Your task to perform on an android device: open app "DuckDuckGo Privacy Browser" (install if not already installed) and go to login screen Image 0: 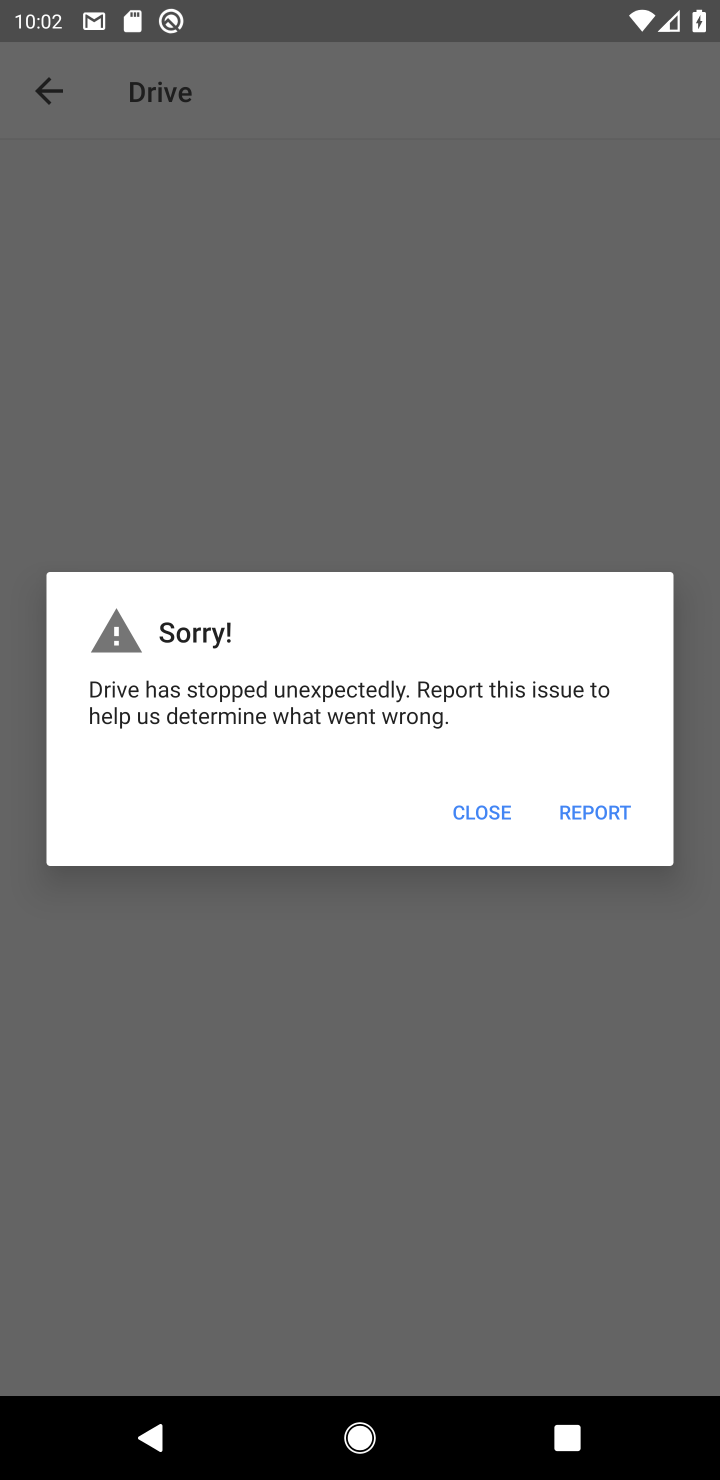
Step 0: press home button
Your task to perform on an android device: open app "DuckDuckGo Privacy Browser" (install if not already installed) and go to login screen Image 1: 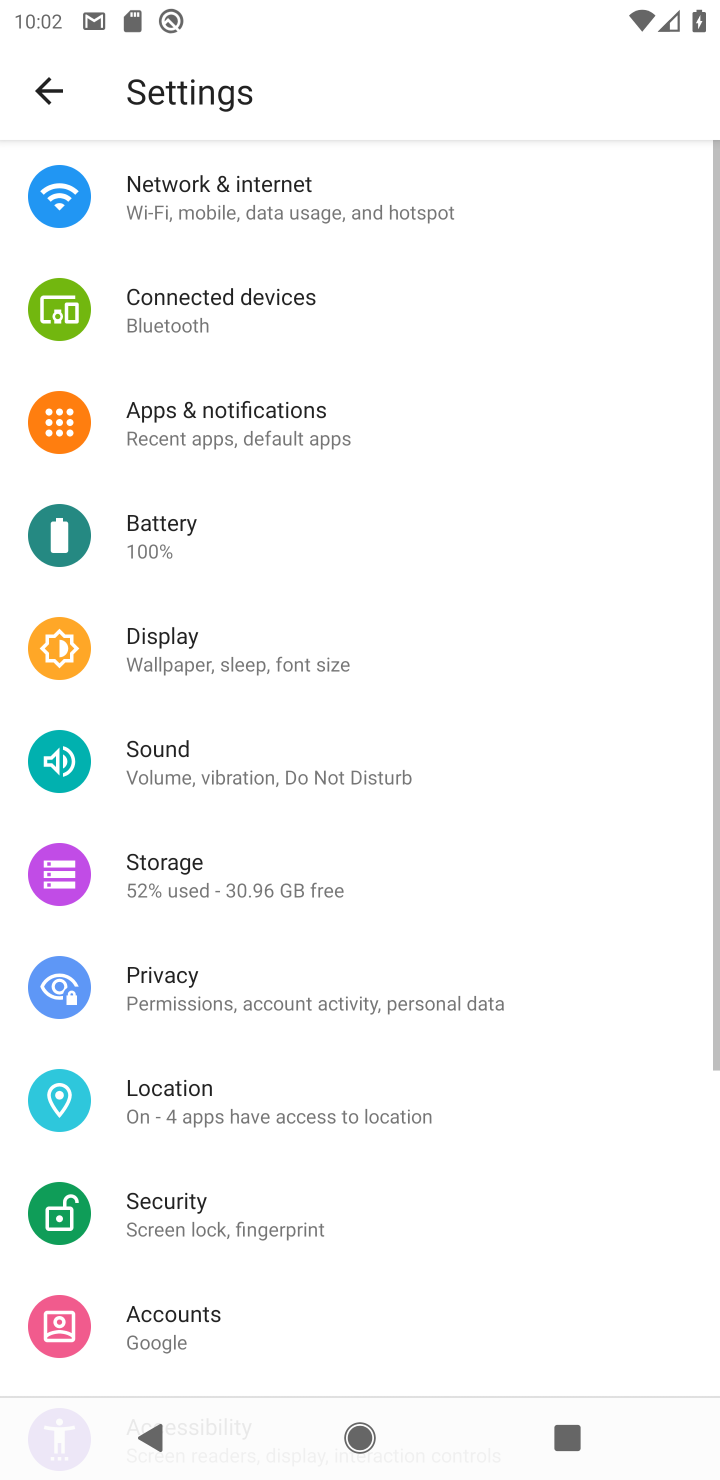
Step 1: press home button
Your task to perform on an android device: open app "DuckDuckGo Privacy Browser" (install if not already installed) and go to login screen Image 2: 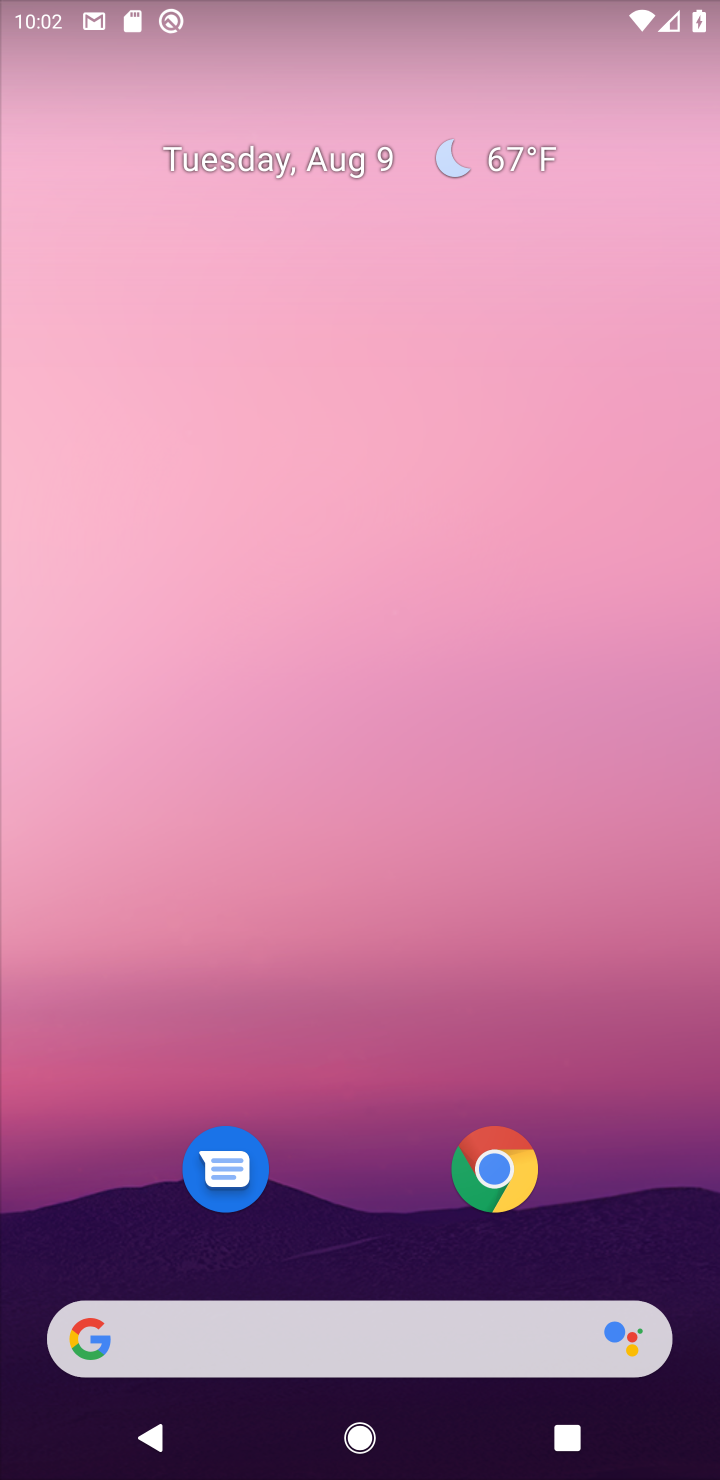
Step 2: drag from (440, 820) to (676, 276)
Your task to perform on an android device: open app "DuckDuckGo Privacy Browser" (install if not already installed) and go to login screen Image 3: 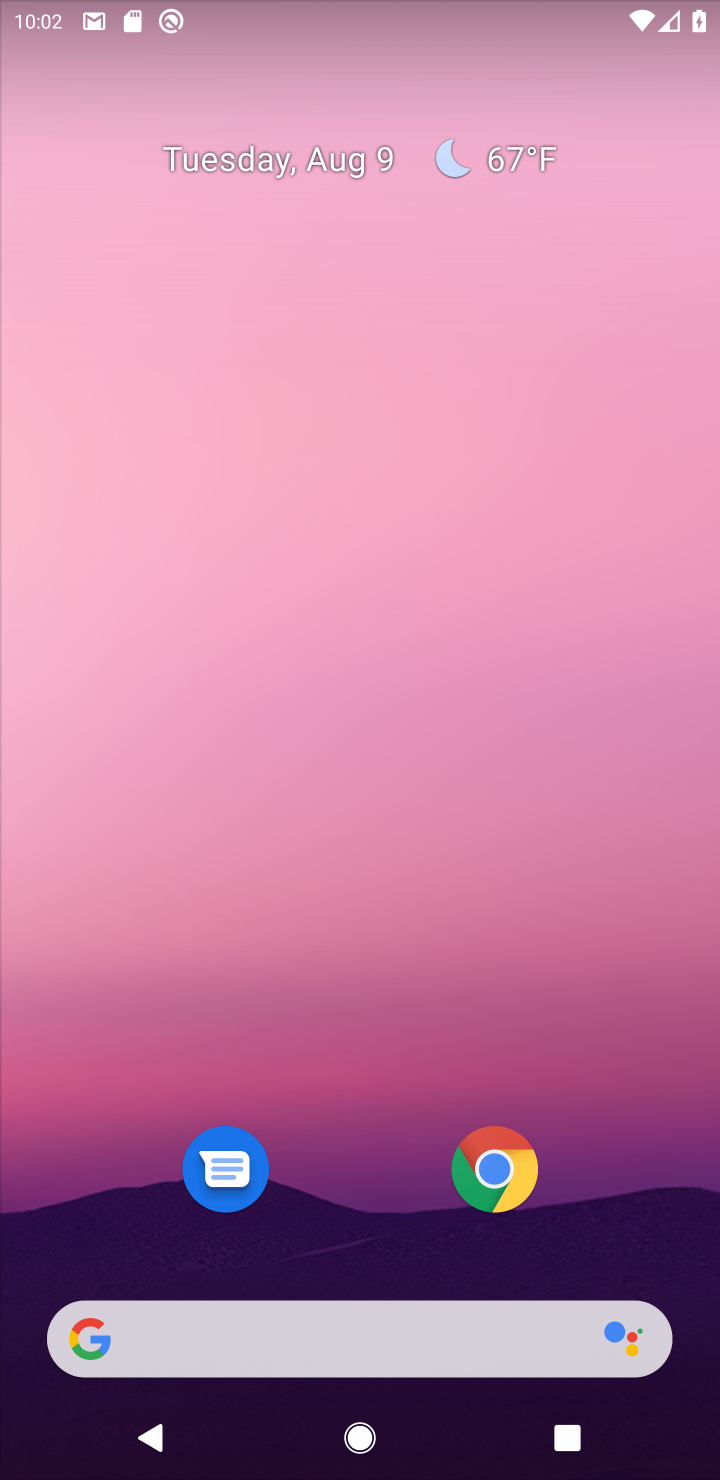
Step 3: drag from (626, 1050) to (655, 116)
Your task to perform on an android device: open app "DuckDuckGo Privacy Browser" (install if not already installed) and go to login screen Image 4: 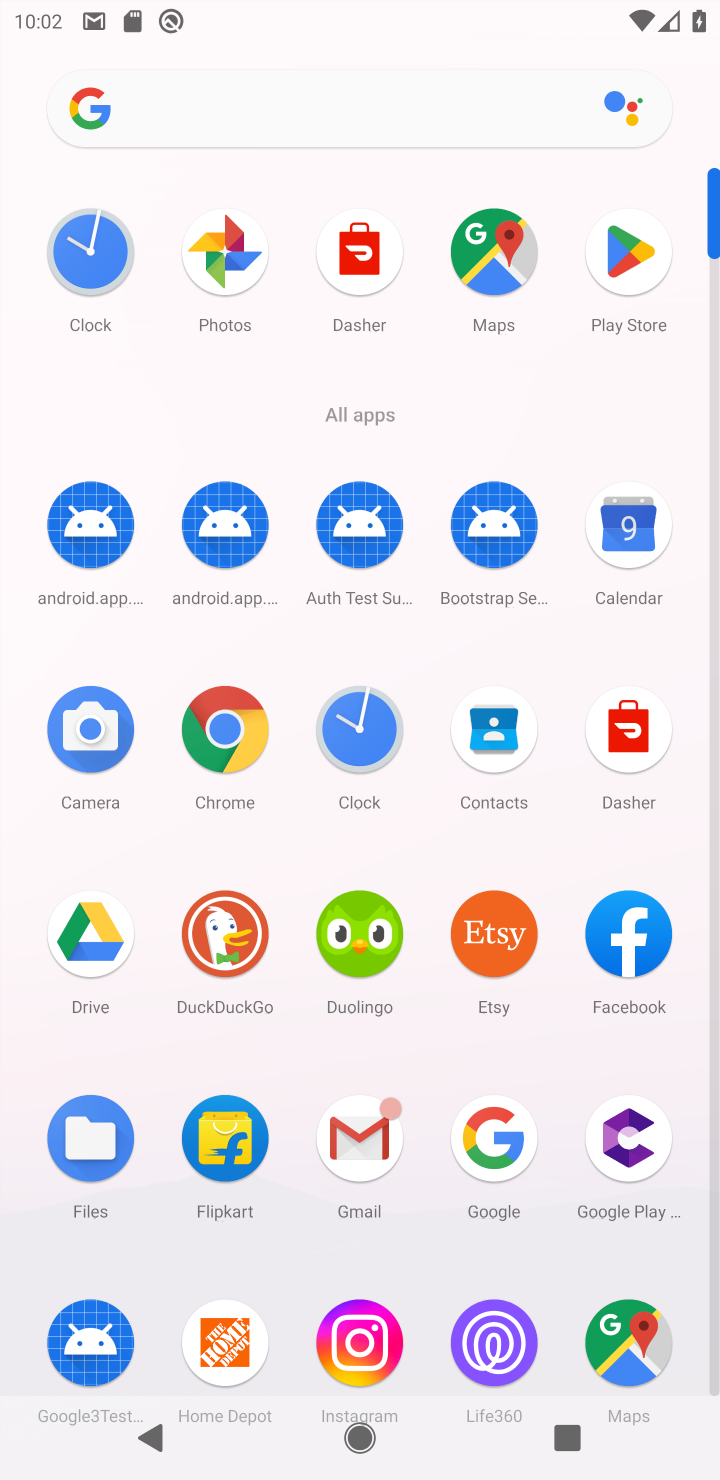
Step 4: click (631, 242)
Your task to perform on an android device: open app "DuckDuckGo Privacy Browser" (install if not already installed) and go to login screen Image 5: 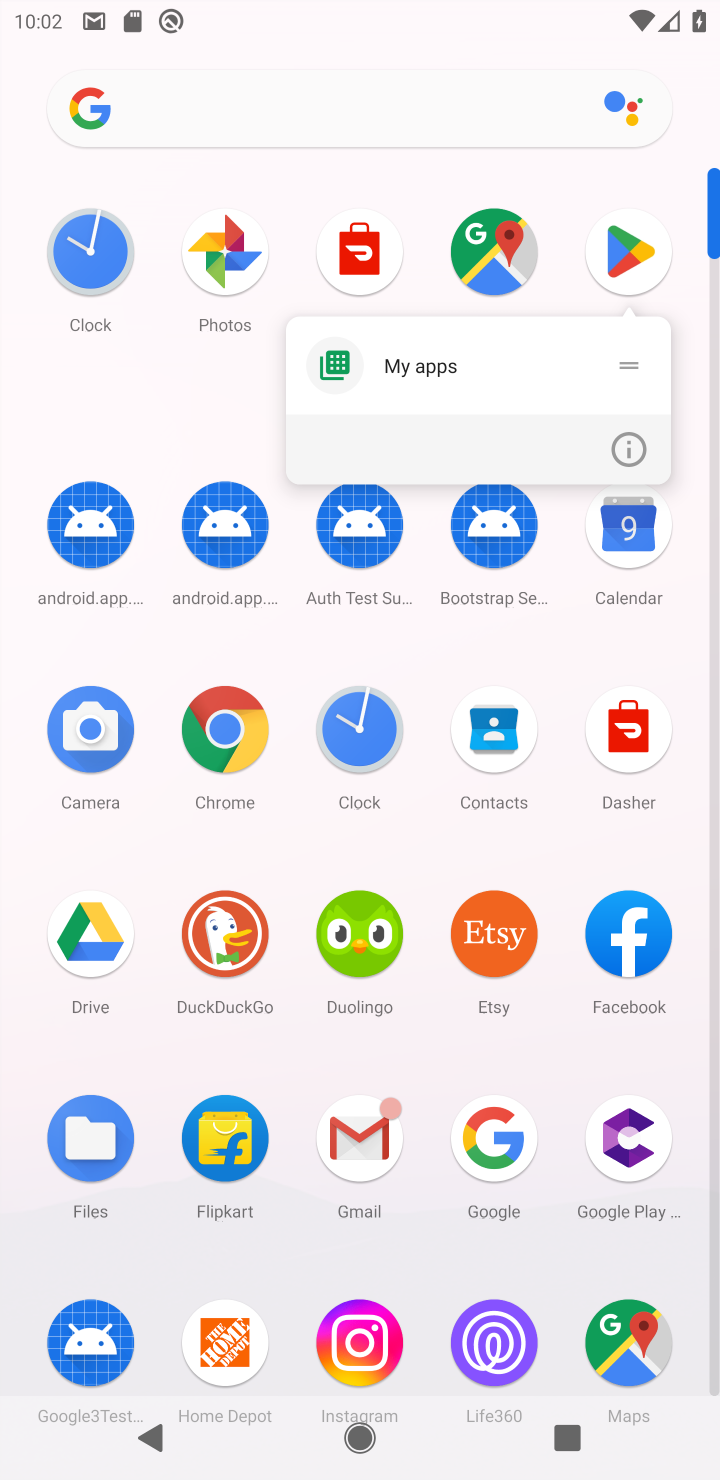
Step 5: click (631, 242)
Your task to perform on an android device: open app "DuckDuckGo Privacy Browser" (install if not already installed) and go to login screen Image 6: 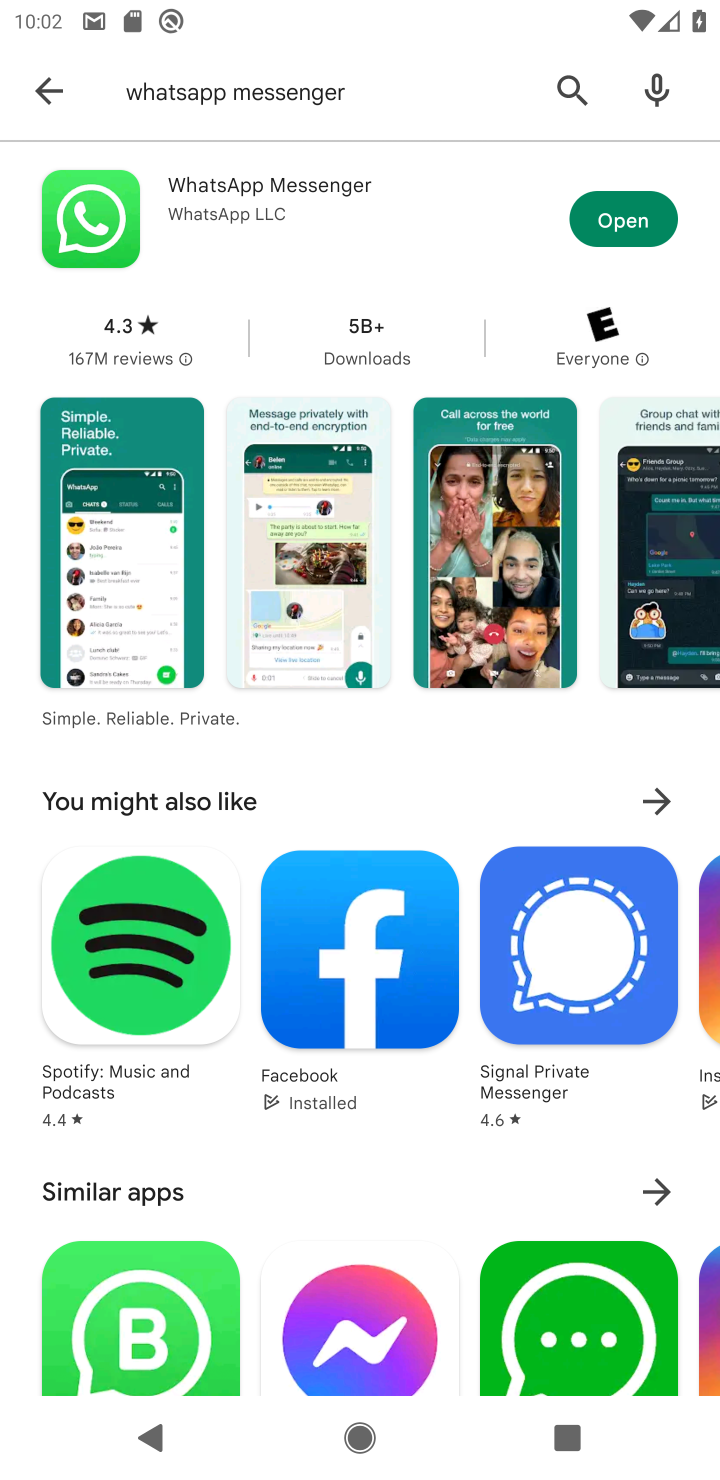
Step 6: click (573, 82)
Your task to perform on an android device: open app "DuckDuckGo Privacy Browser" (install if not already installed) and go to login screen Image 7: 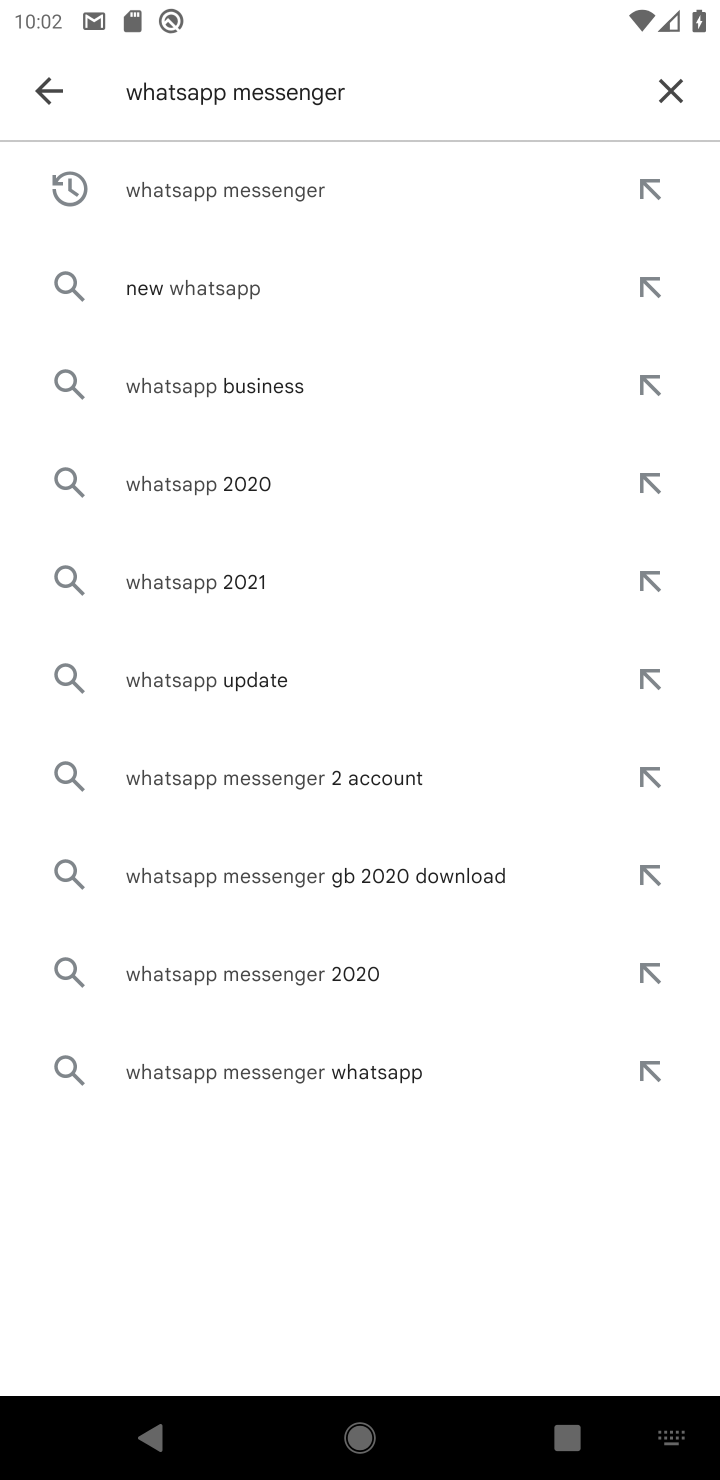
Step 7: click (673, 76)
Your task to perform on an android device: open app "DuckDuckGo Privacy Browser" (install if not already installed) and go to login screen Image 8: 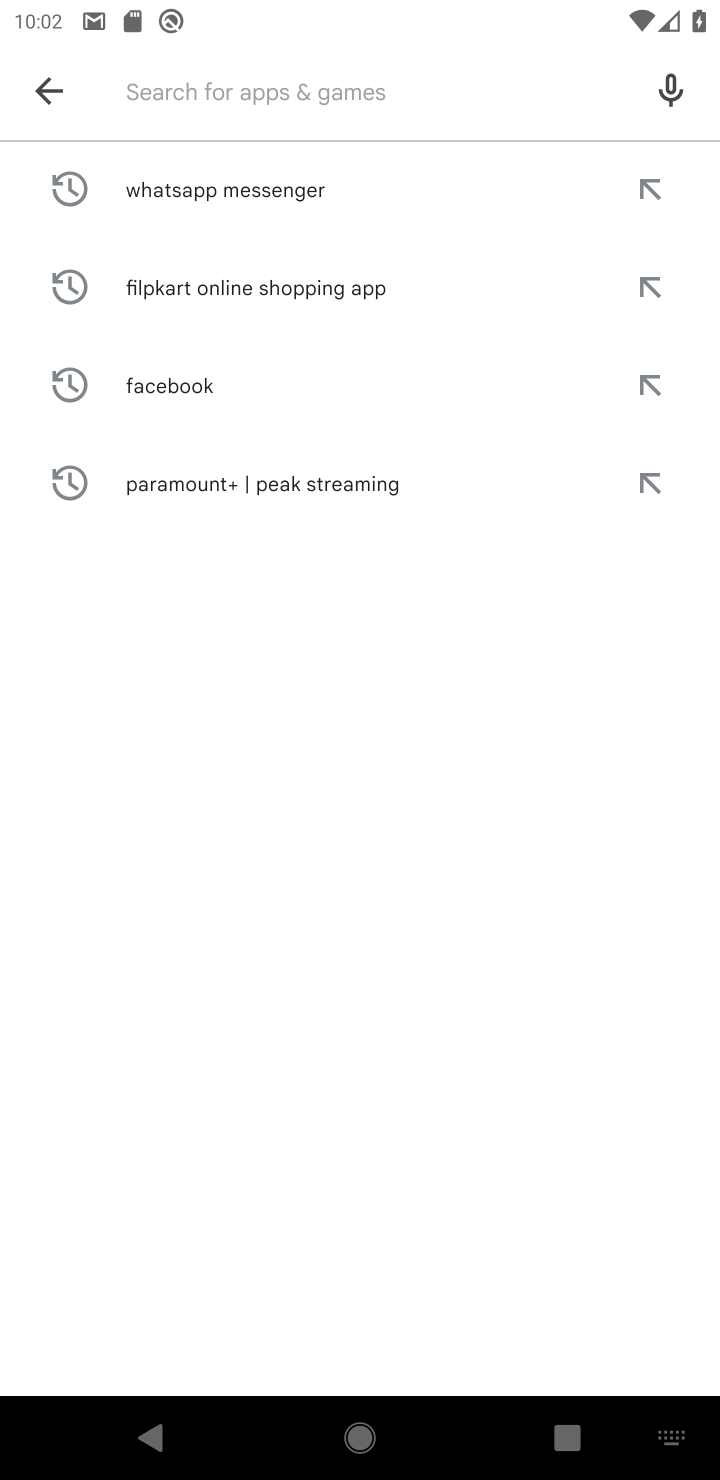
Step 8: click (387, 83)
Your task to perform on an android device: open app "DuckDuckGo Privacy Browser" (install if not already installed) and go to login screen Image 9: 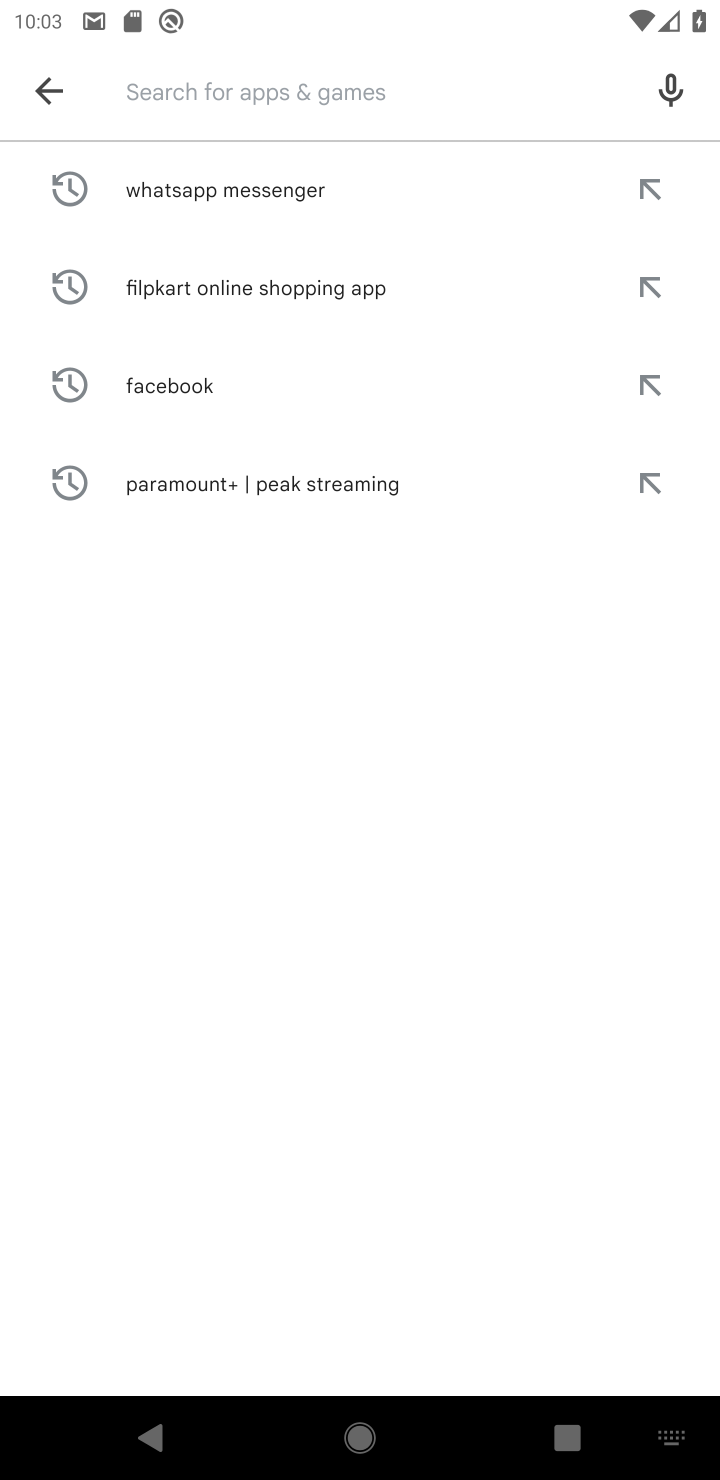
Step 9: type "DuckDuckGo Privacy Browser"
Your task to perform on an android device: open app "DuckDuckGo Privacy Browser" (install if not already installed) and go to login screen Image 10: 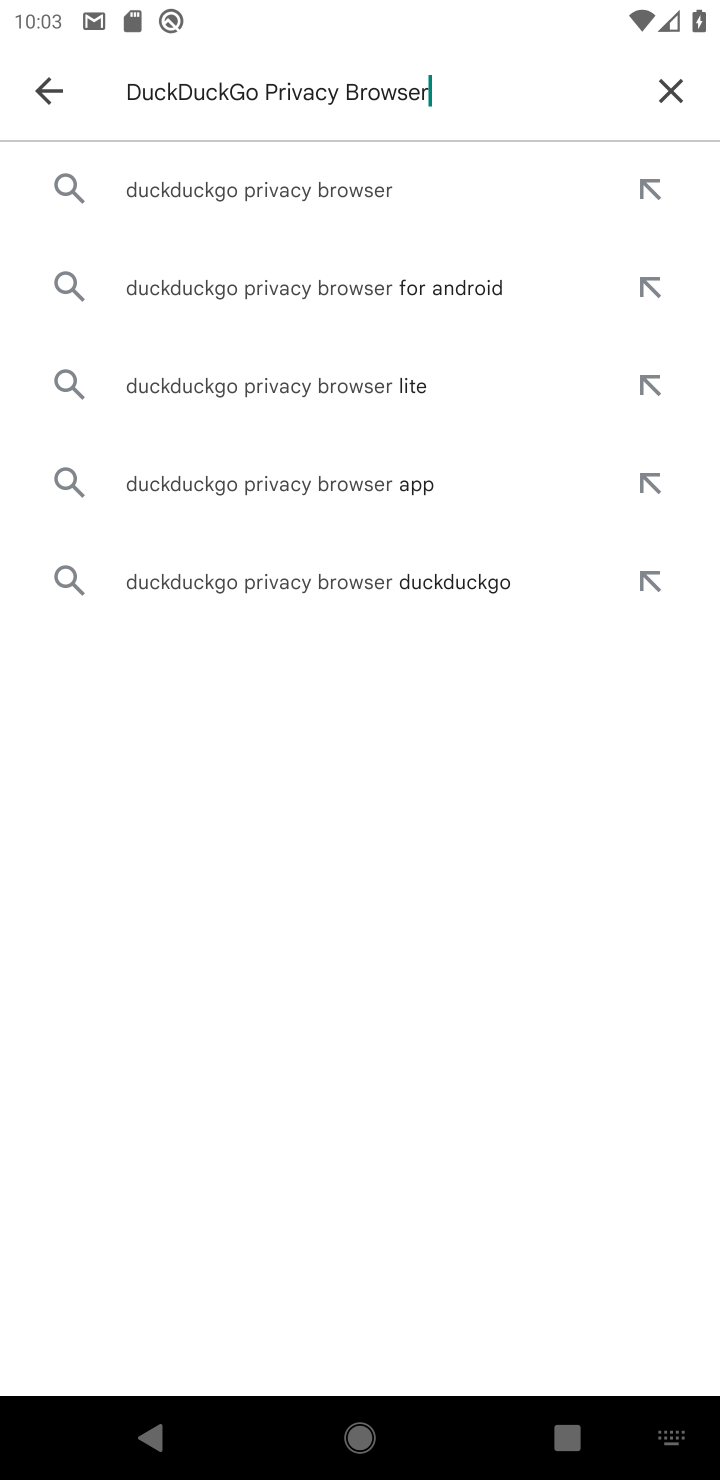
Step 10: click (364, 202)
Your task to perform on an android device: open app "DuckDuckGo Privacy Browser" (install if not already installed) and go to login screen Image 11: 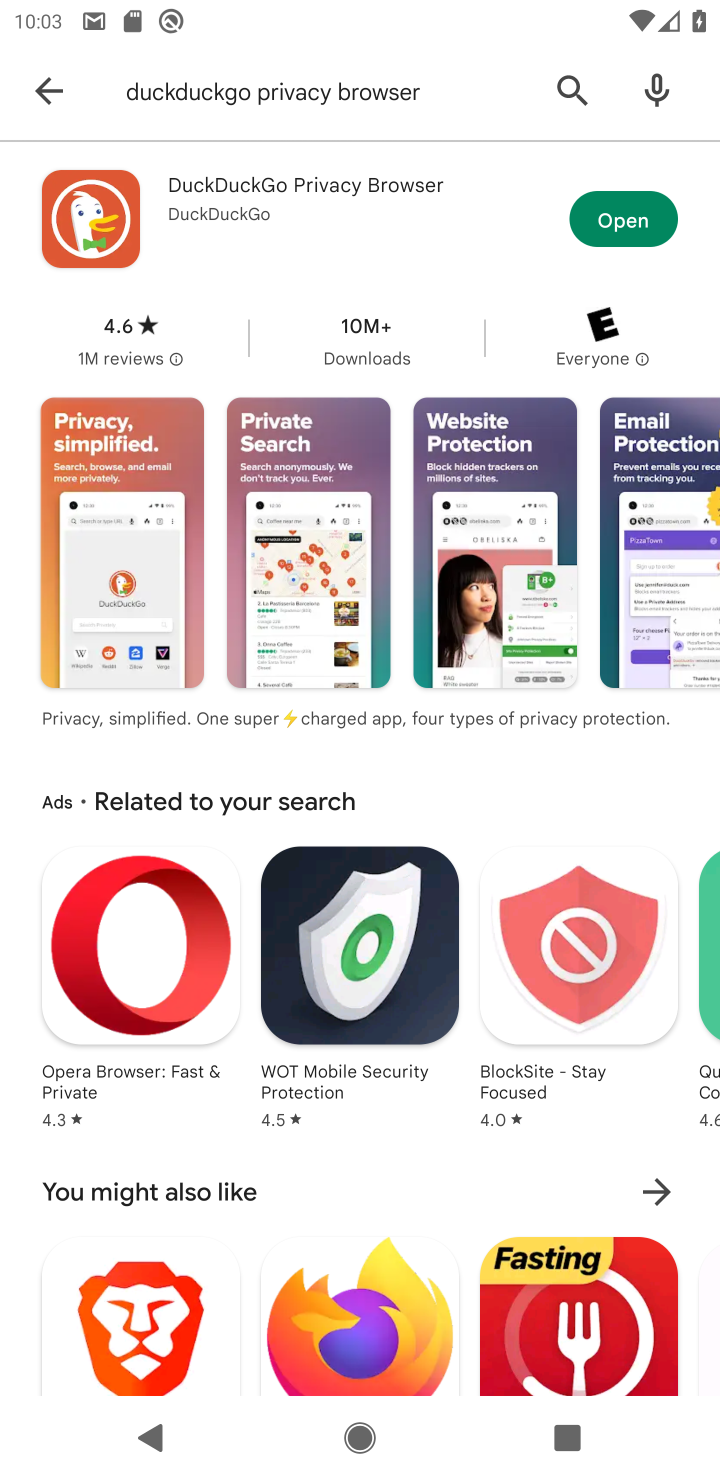
Step 11: click (645, 223)
Your task to perform on an android device: open app "DuckDuckGo Privacy Browser" (install if not already installed) and go to login screen Image 12: 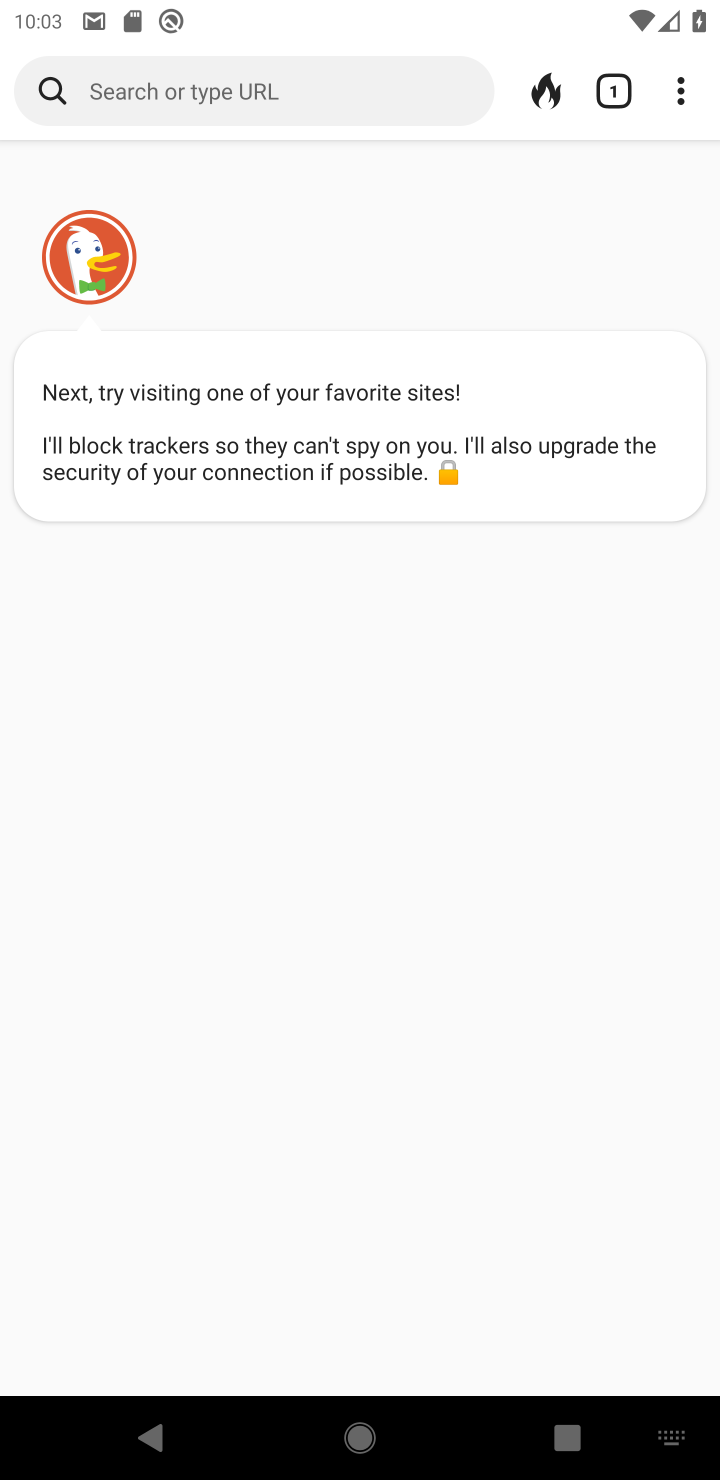
Step 12: press back button
Your task to perform on an android device: open app "DuckDuckGo Privacy Browser" (install if not already installed) and go to login screen Image 13: 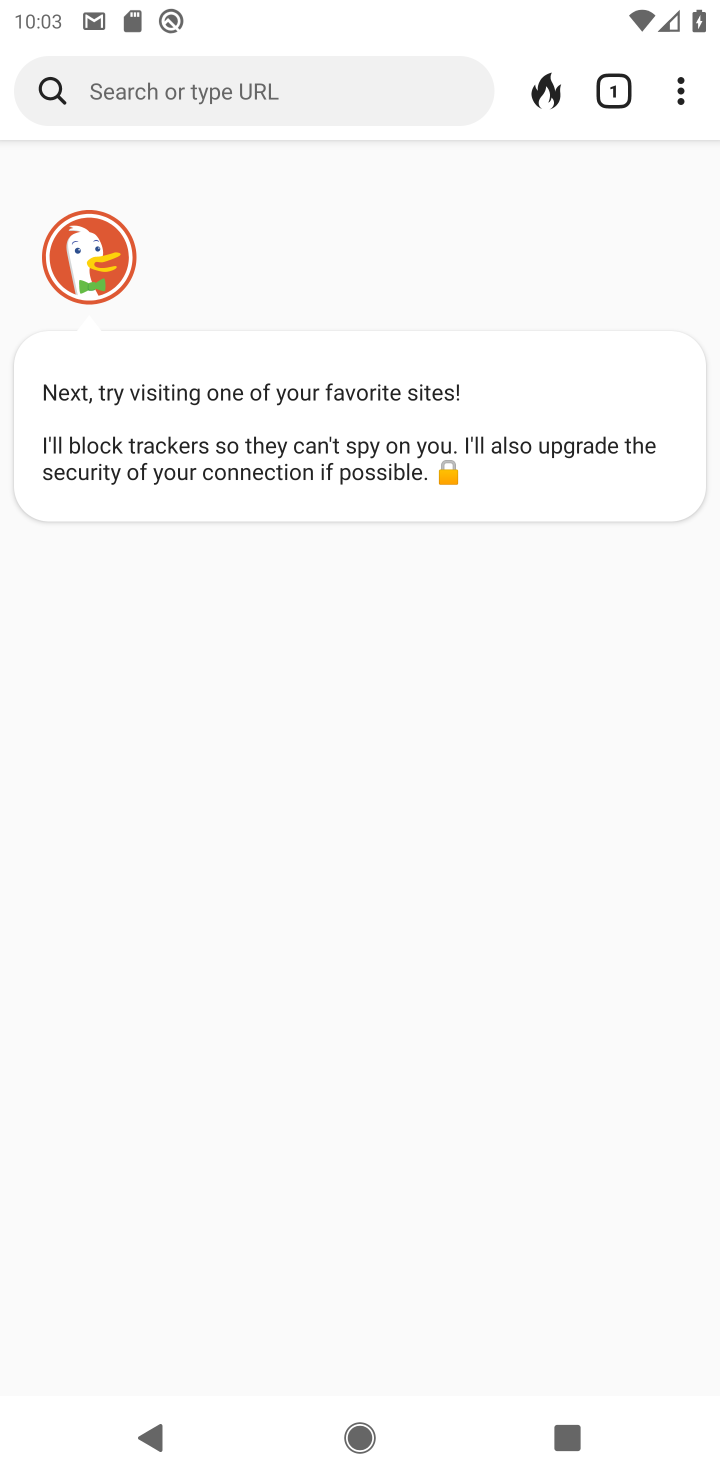
Step 13: press back button
Your task to perform on an android device: open app "DuckDuckGo Privacy Browser" (install if not already installed) and go to login screen Image 14: 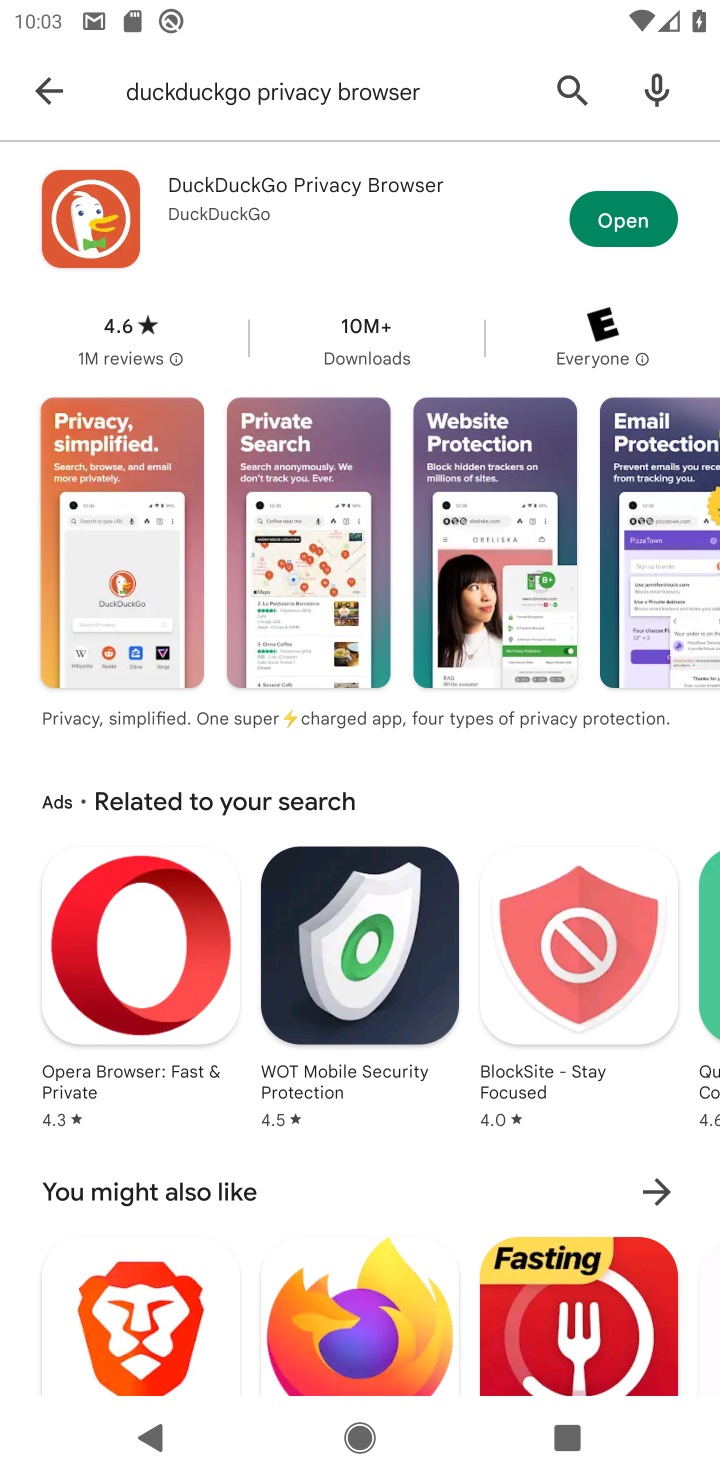
Step 14: click (624, 218)
Your task to perform on an android device: open app "DuckDuckGo Privacy Browser" (install if not already installed) and go to login screen Image 15: 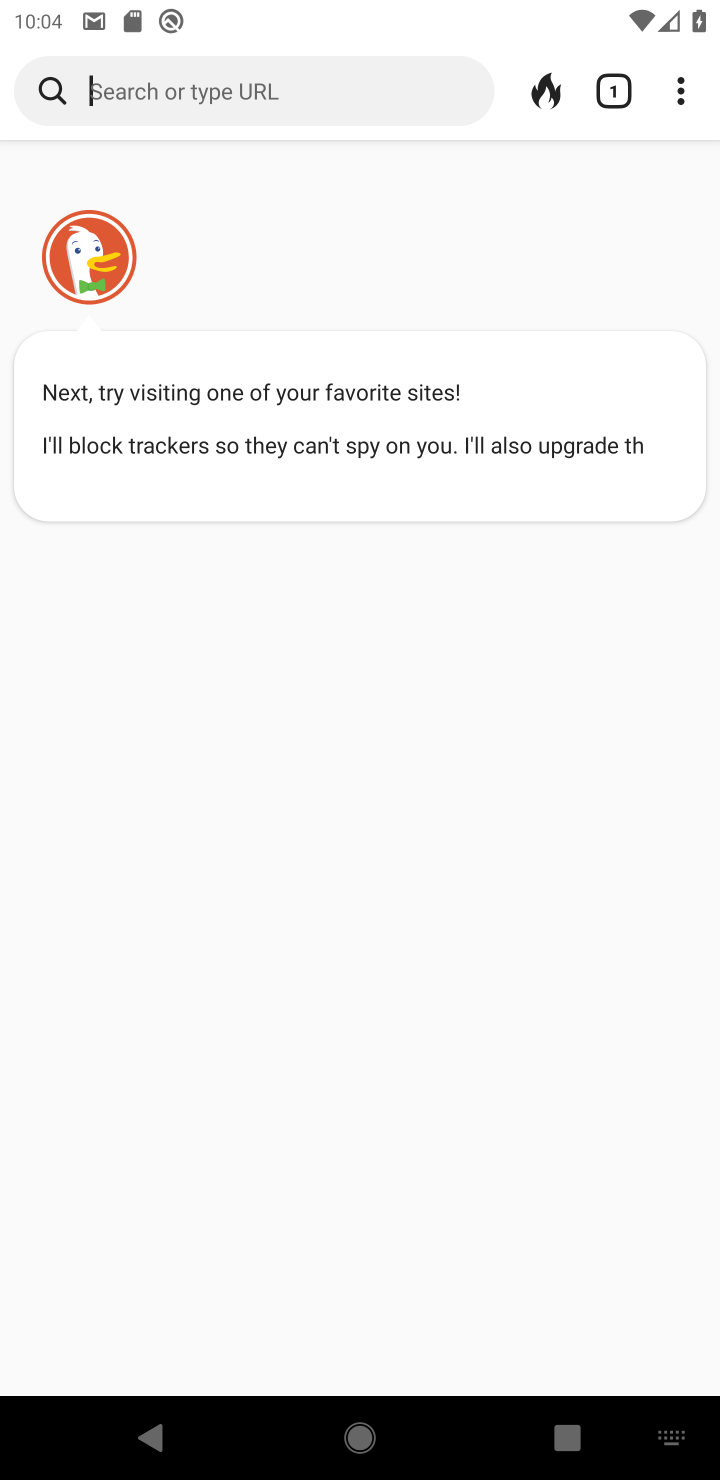
Step 15: task complete